Your task to perform on an android device: check data usage Image 0: 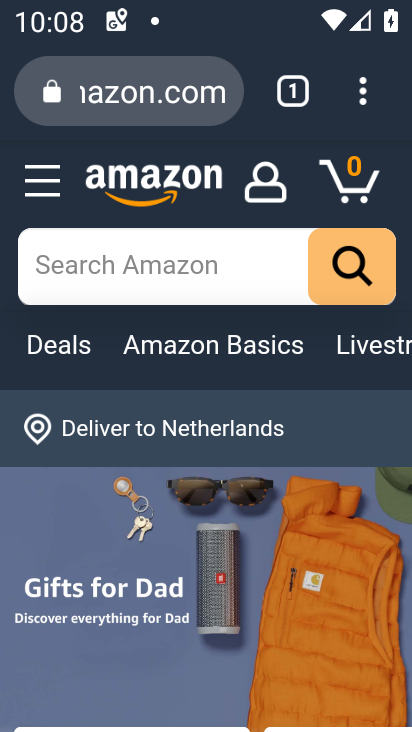
Step 0: press home button
Your task to perform on an android device: check data usage Image 1: 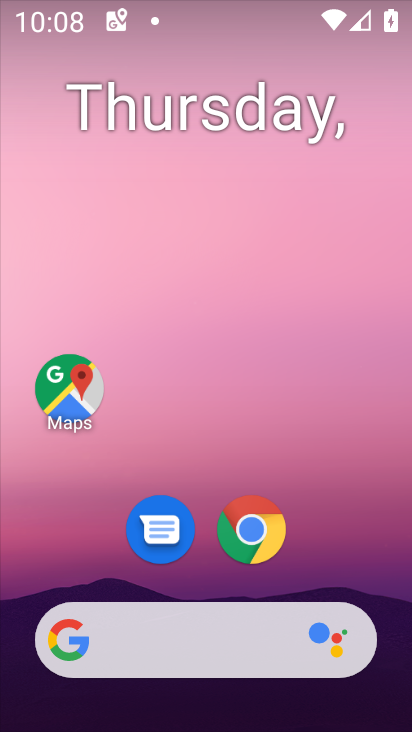
Step 1: drag from (325, 592) to (269, 47)
Your task to perform on an android device: check data usage Image 2: 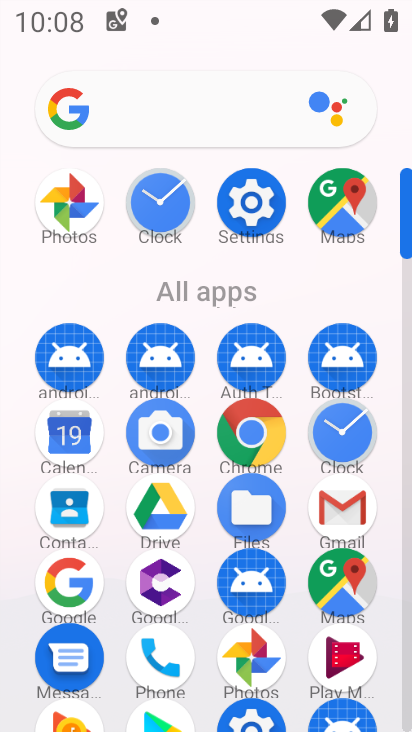
Step 2: click (266, 214)
Your task to perform on an android device: check data usage Image 3: 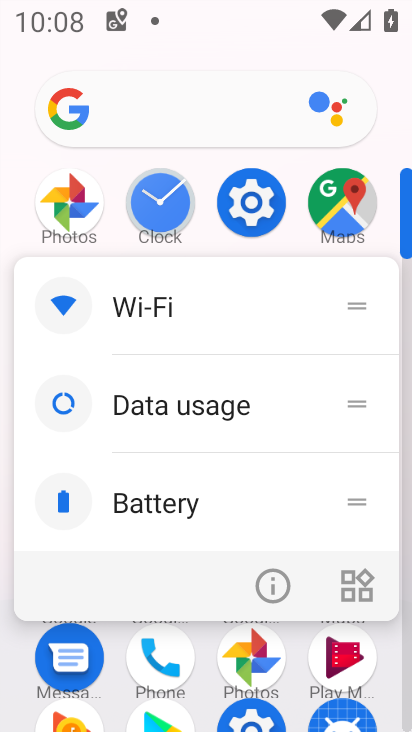
Step 3: click (239, 206)
Your task to perform on an android device: check data usage Image 4: 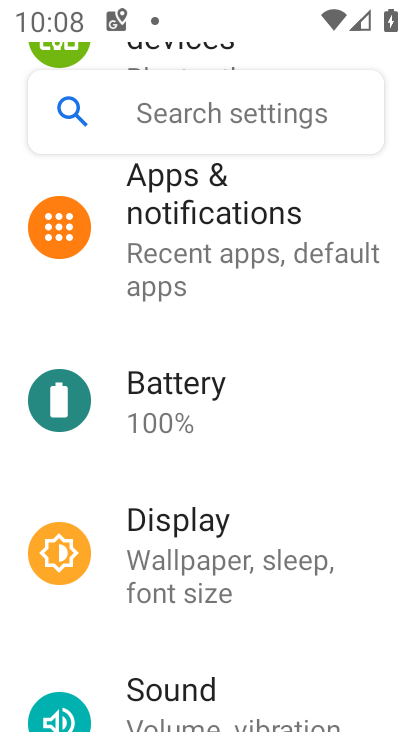
Step 4: drag from (208, 324) to (186, 440)
Your task to perform on an android device: check data usage Image 5: 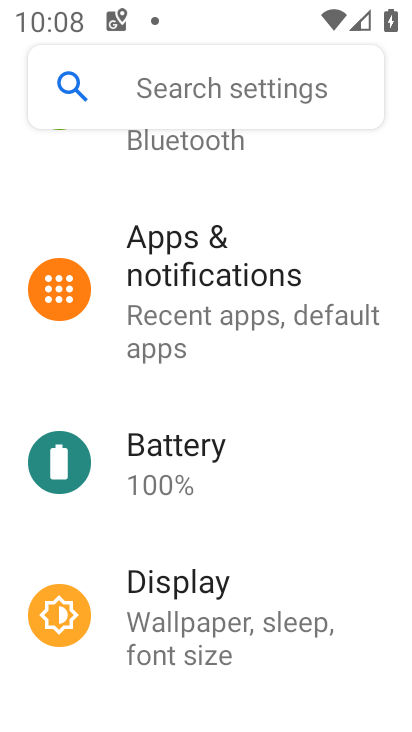
Step 5: drag from (210, 263) to (252, 489)
Your task to perform on an android device: check data usage Image 6: 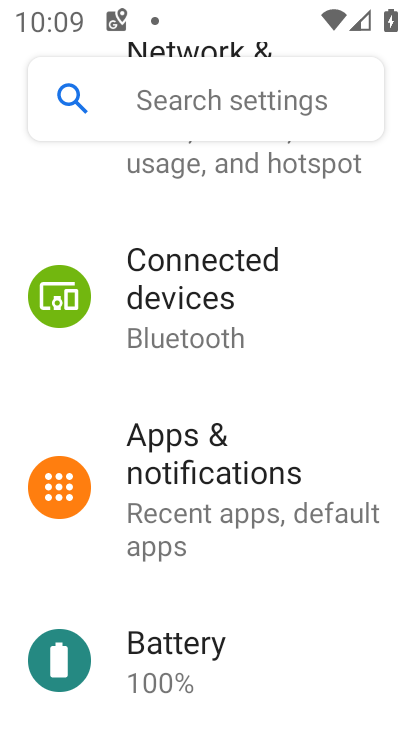
Step 6: drag from (226, 283) to (237, 430)
Your task to perform on an android device: check data usage Image 7: 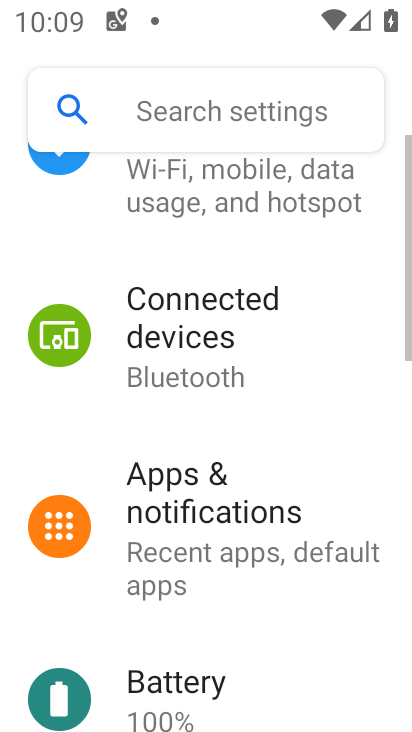
Step 7: drag from (219, 236) to (212, 485)
Your task to perform on an android device: check data usage Image 8: 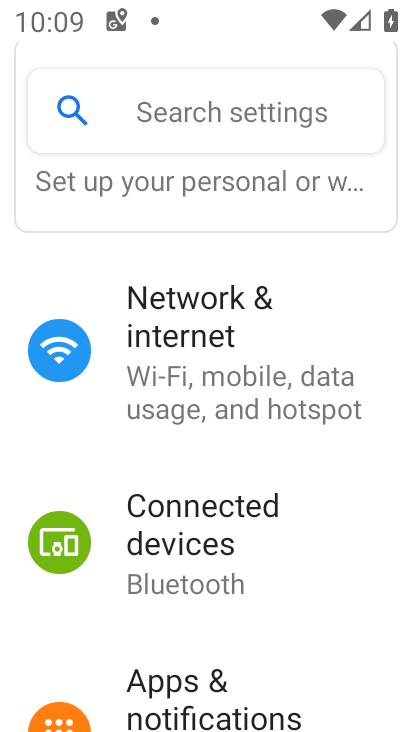
Step 8: click (199, 343)
Your task to perform on an android device: check data usage Image 9: 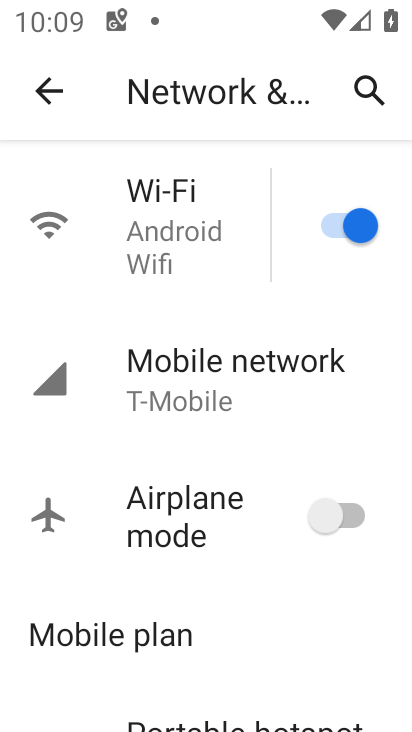
Step 9: click (167, 396)
Your task to perform on an android device: check data usage Image 10: 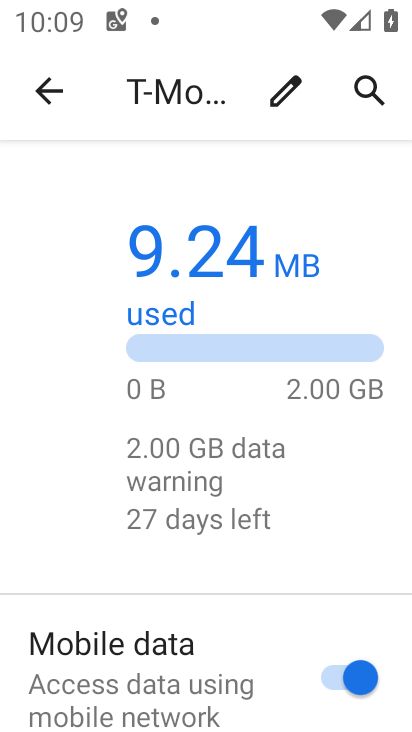
Step 10: drag from (219, 662) to (135, 220)
Your task to perform on an android device: check data usage Image 11: 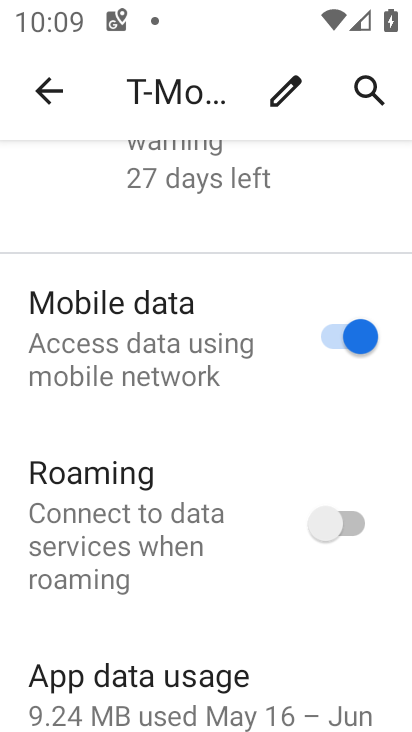
Step 11: click (144, 686)
Your task to perform on an android device: check data usage Image 12: 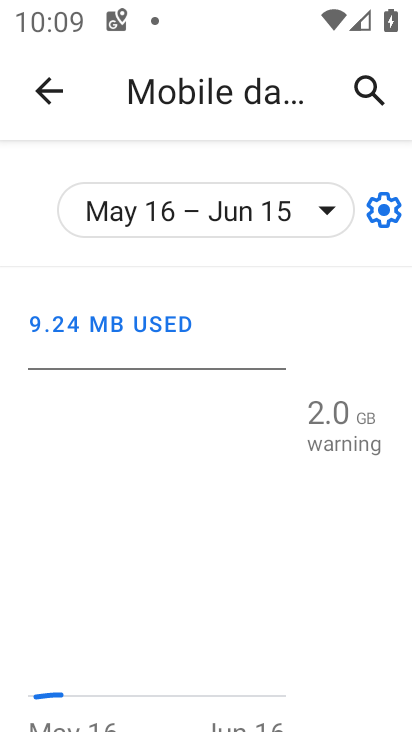
Step 12: task complete